Your task to perform on an android device: Open settings on Google Maps Image 0: 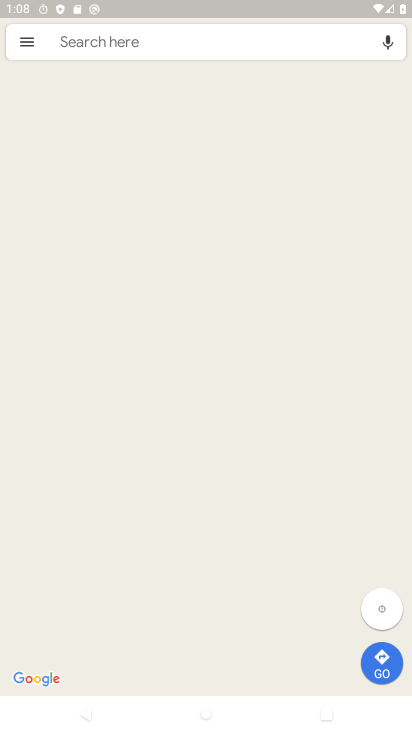
Step 0: press home button
Your task to perform on an android device: Open settings on Google Maps Image 1: 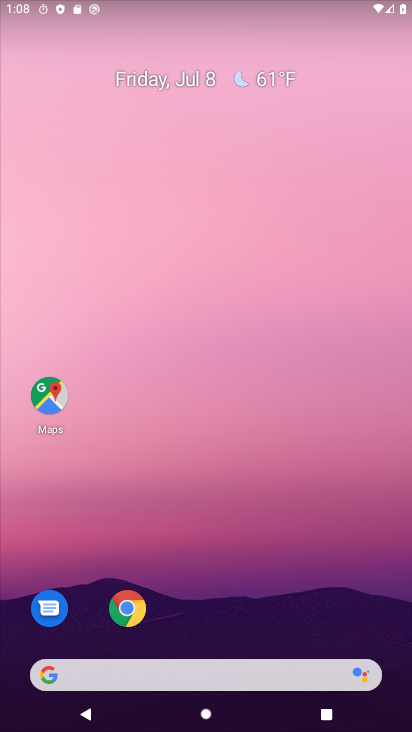
Step 1: drag from (223, 615) to (283, 78)
Your task to perform on an android device: Open settings on Google Maps Image 2: 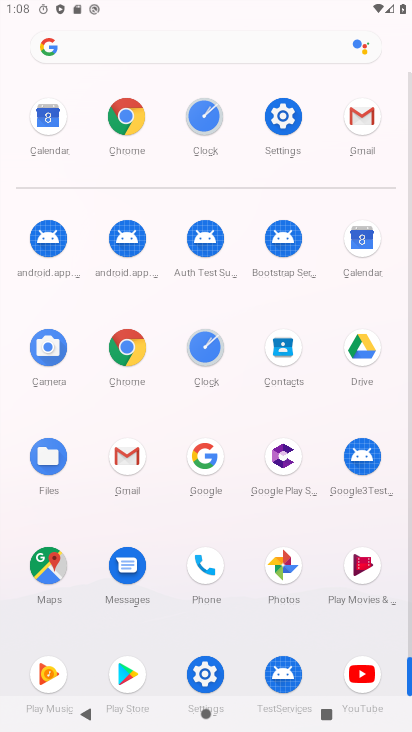
Step 2: click (52, 563)
Your task to perform on an android device: Open settings on Google Maps Image 3: 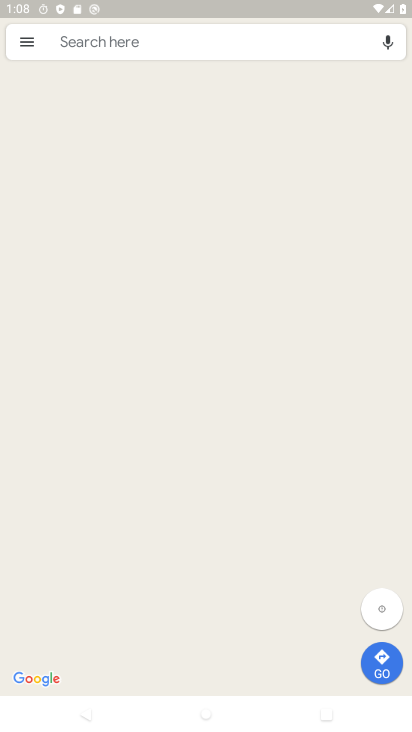
Step 3: click (24, 35)
Your task to perform on an android device: Open settings on Google Maps Image 4: 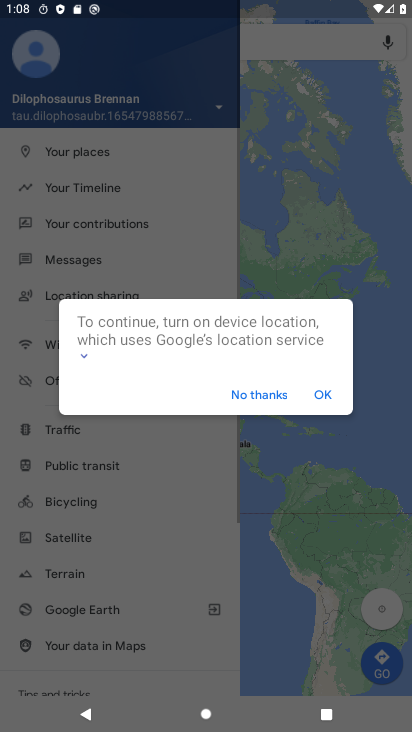
Step 4: click (321, 391)
Your task to perform on an android device: Open settings on Google Maps Image 5: 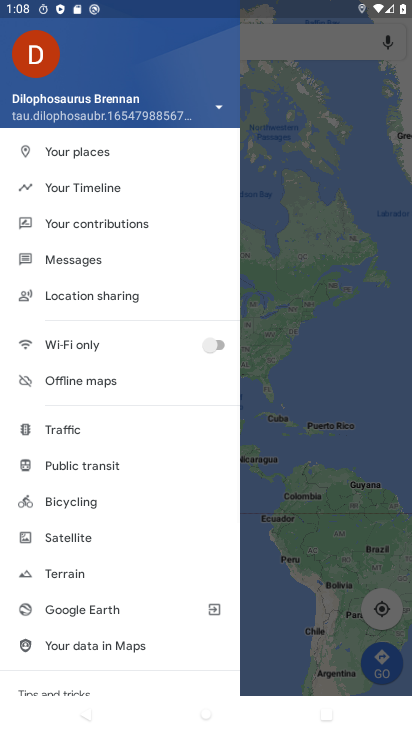
Step 5: drag from (95, 576) to (134, 278)
Your task to perform on an android device: Open settings on Google Maps Image 6: 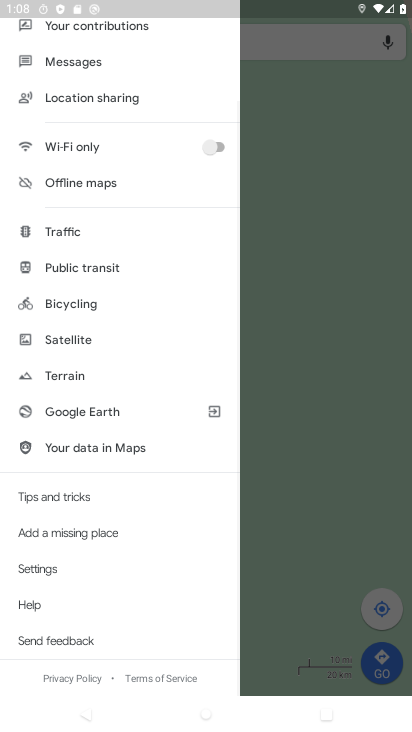
Step 6: click (21, 565)
Your task to perform on an android device: Open settings on Google Maps Image 7: 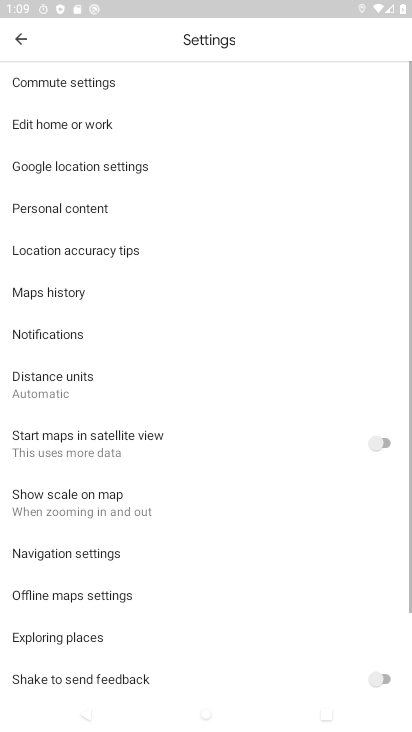
Step 7: task complete